Your task to perform on an android device: check storage Image 0: 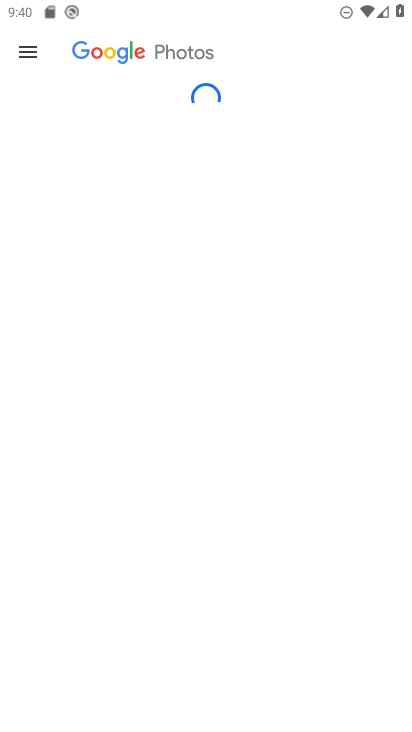
Step 0: press home button
Your task to perform on an android device: check storage Image 1: 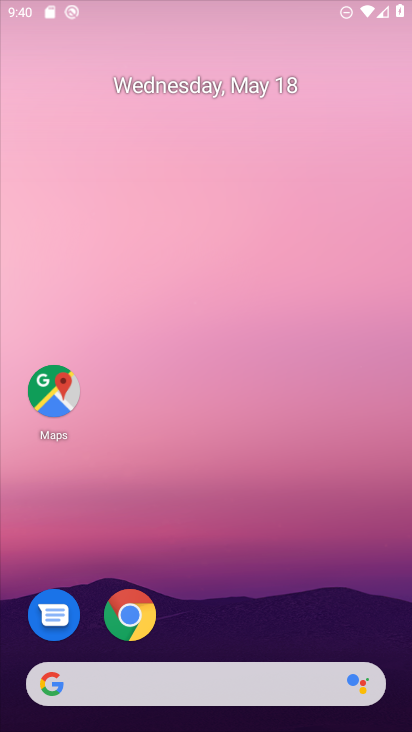
Step 1: drag from (226, 599) to (297, 54)
Your task to perform on an android device: check storage Image 2: 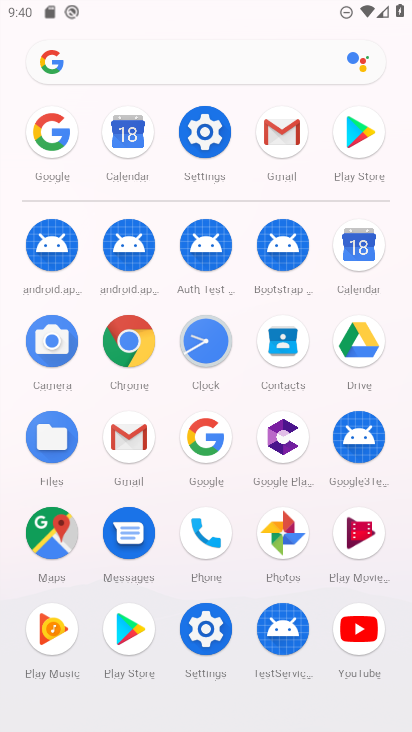
Step 2: click (205, 137)
Your task to perform on an android device: check storage Image 3: 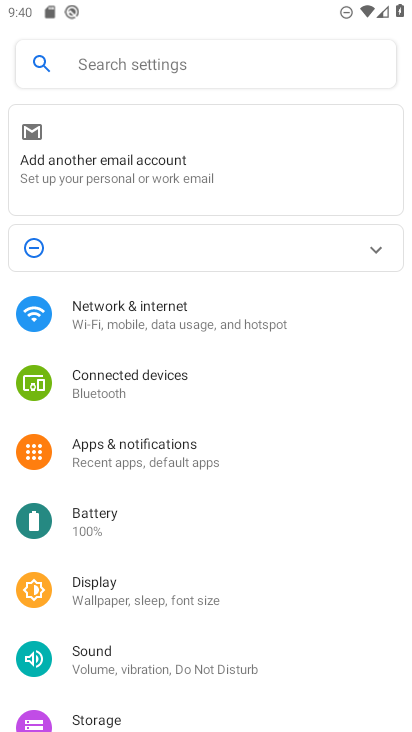
Step 3: drag from (152, 531) to (215, 298)
Your task to perform on an android device: check storage Image 4: 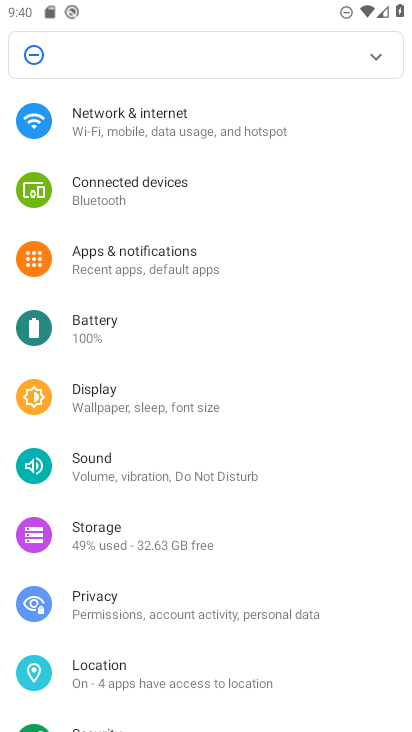
Step 4: click (143, 523)
Your task to perform on an android device: check storage Image 5: 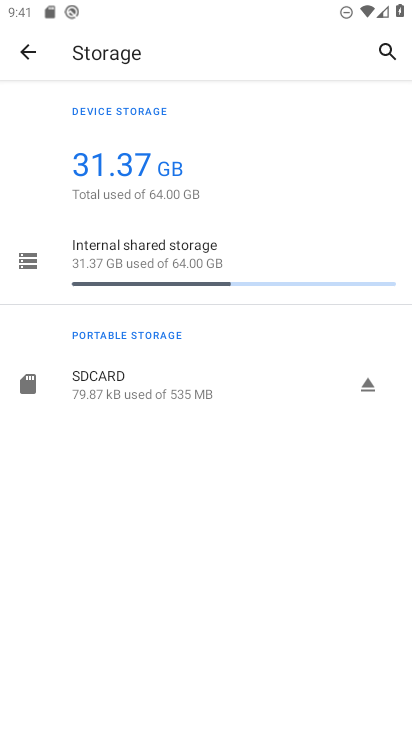
Step 5: task complete